Your task to perform on an android device: Check the news Image 0: 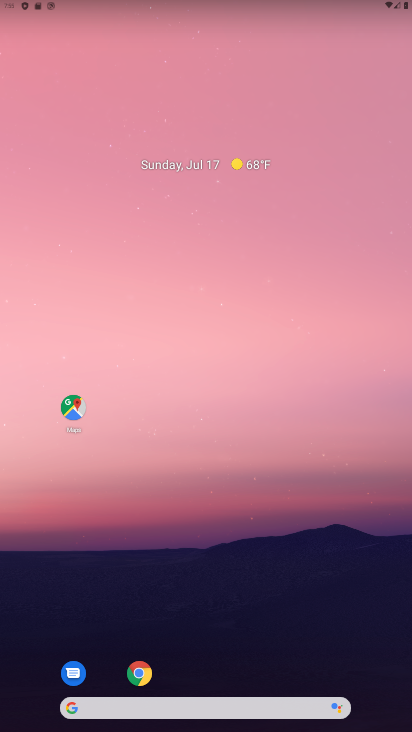
Step 0: drag from (257, 432) to (250, 16)
Your task to perform on an android device: Check the news Image 1: 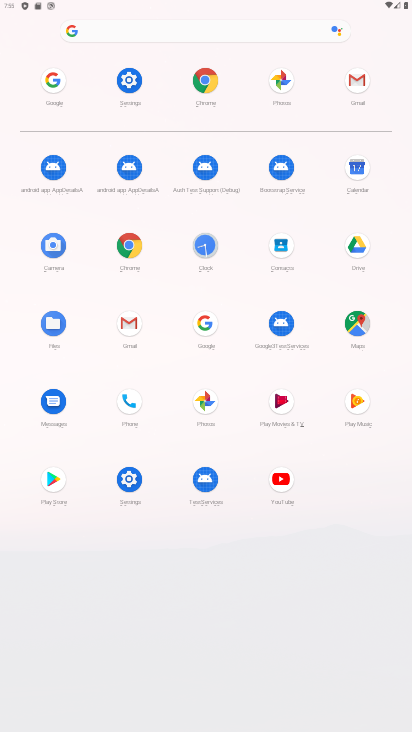
Step 1: click (205, 71)
Your task to perform on an android device: Check the news Image 2: 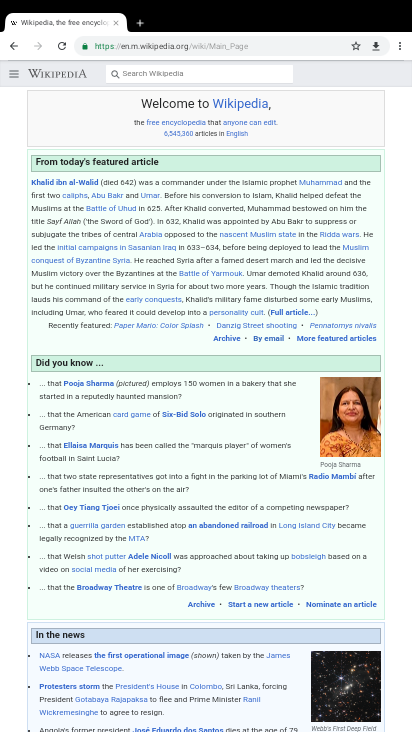
Step 2: click (8, 45)
Your task to perform on an android device: Check the news Image 3: 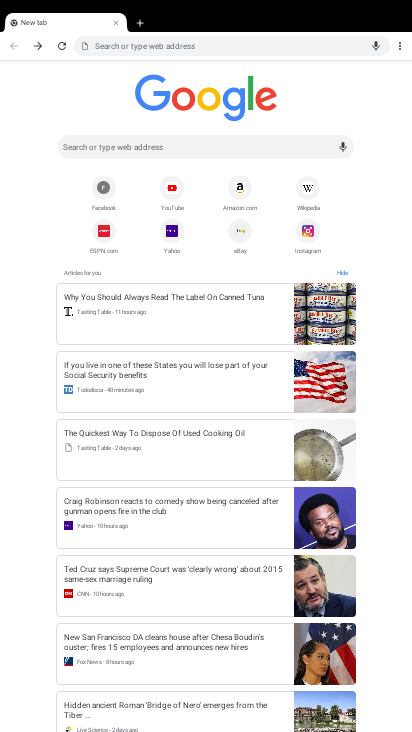
Step 3: task complete